Your task to perform on an android device: set an alarm Image 0: 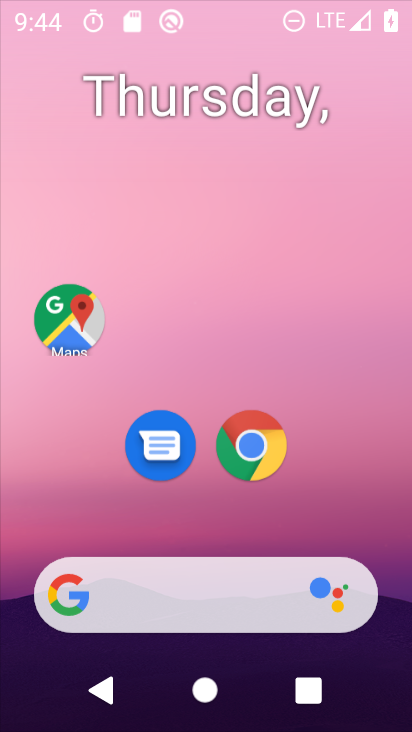
Step 0: click (217, 165)
Your task to perform on an android device: set an alarm Image 1: 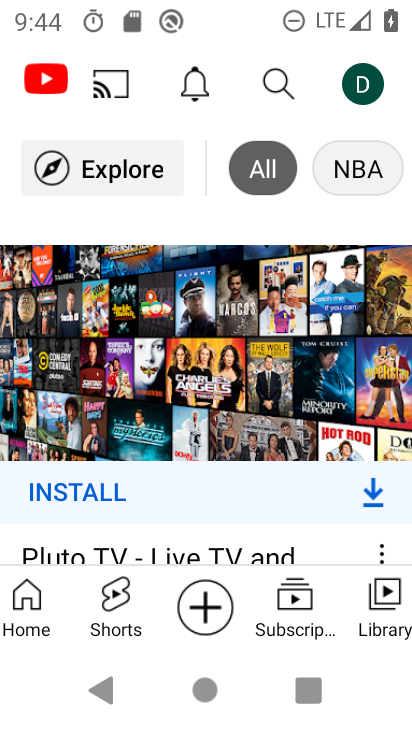
Step 1: press home button
Your task to perform on an android device: set an alarm Image 2: 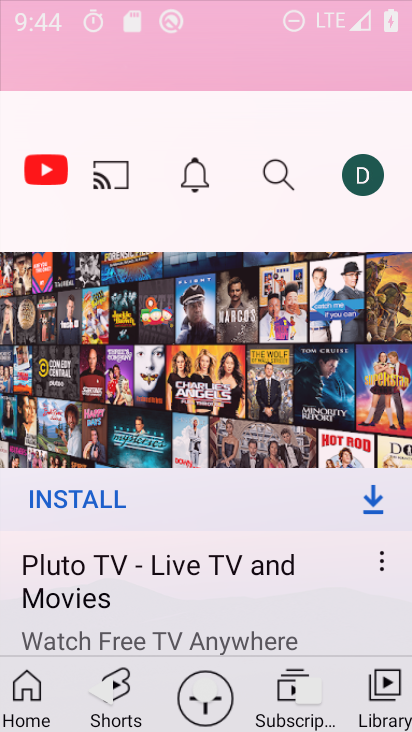
Step 2: drag from (206, 514) to (223, 180)
Your task to perform on an android device: set an alarm Image 3: 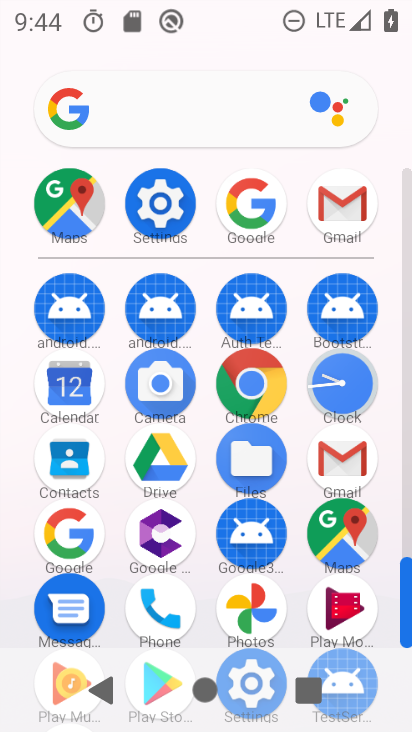
Step 3: click (333, 389)
Your task to perform on an android device: set an alarm Image 4: 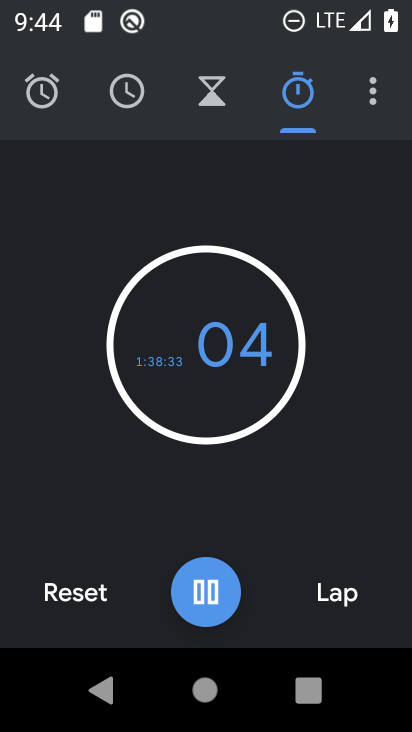
Step 4: click (34, 106)
Your task to perform on an android device: set an alarm Image 5: 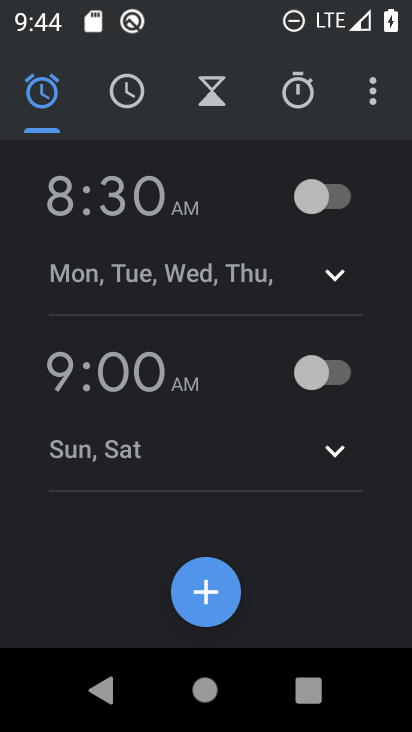
Step 5: click (340, 389)
Your task to perform on an android device: set an alarm Image 6: 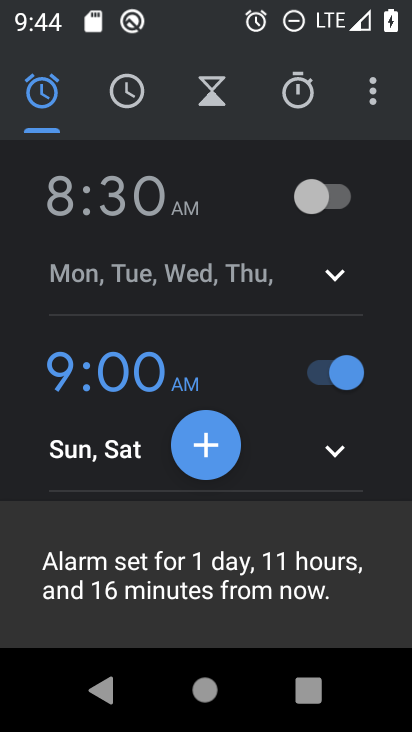
Step 6: task complete